Your task to perform on an android device: change the clock display to analog Image 0: 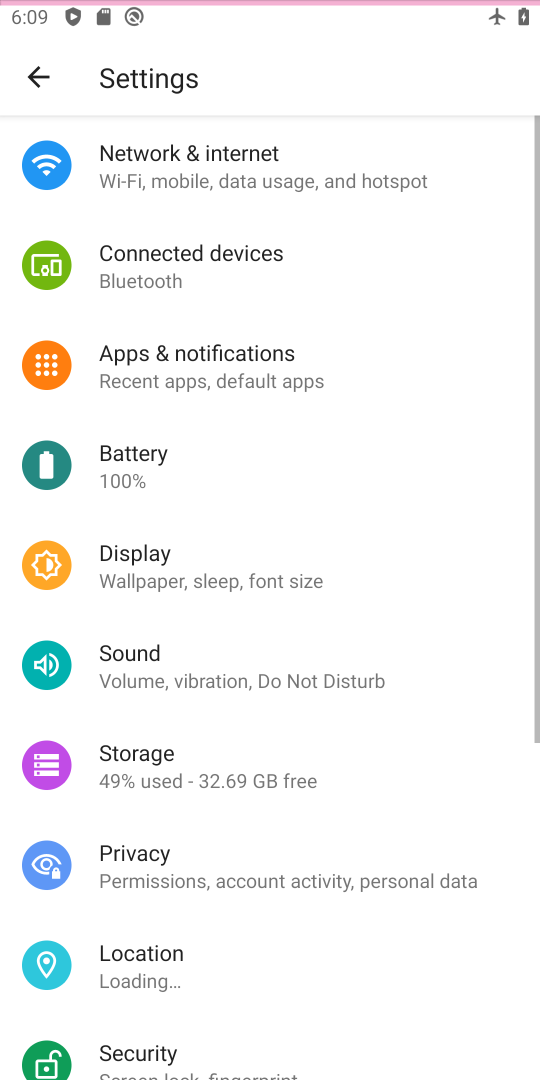
Step 0: press home button
Your task to perform on an android device: change the clock display to analog Image 1: 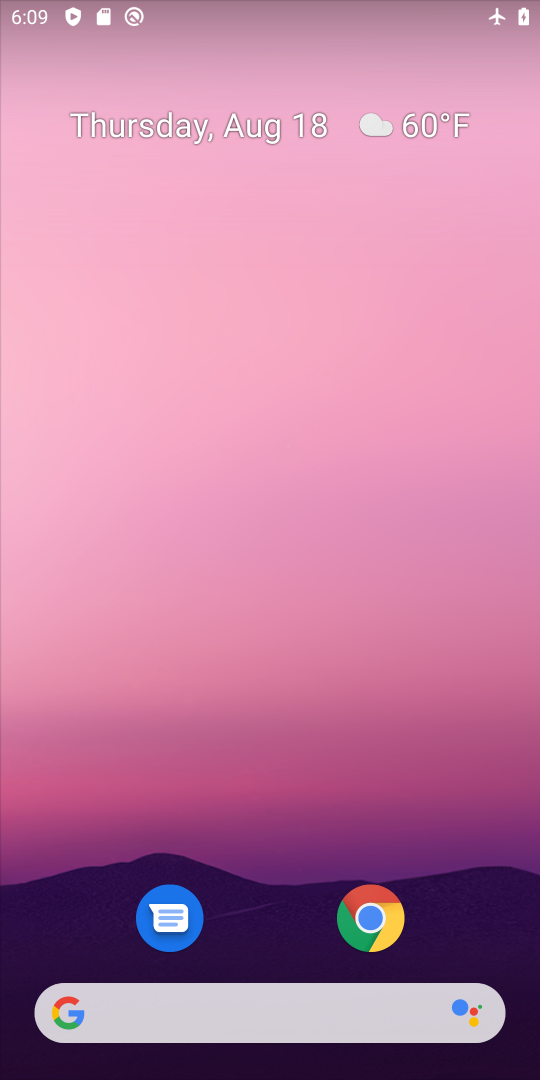
Step 1: drag from (233, 852) to (198, 288)
Your task to perform on an android device: change the clock display to analog Image 2: 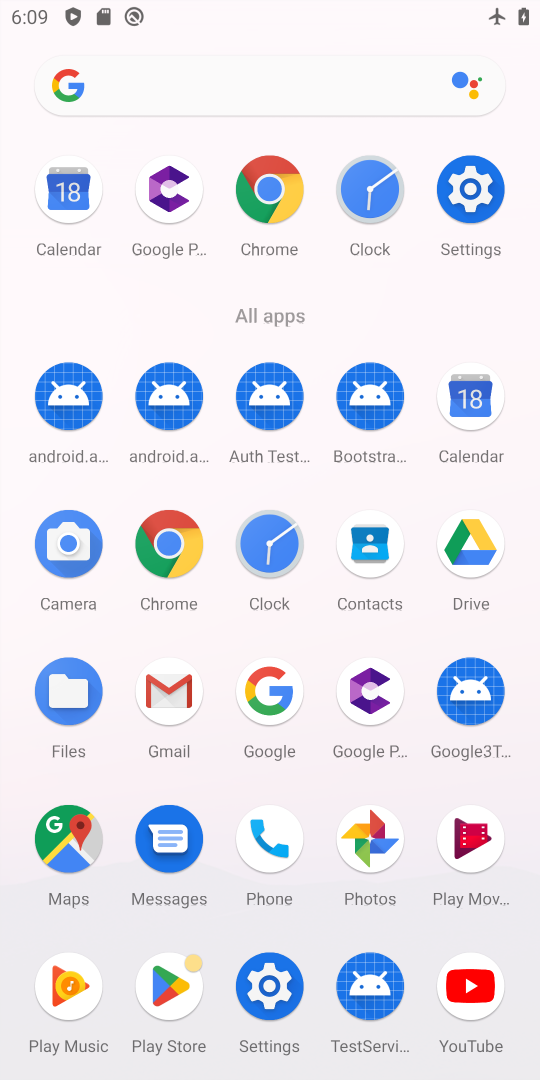
Step 2: click (359, 210)
Your task to perform on an android device: change the clock display to analog Image 3: 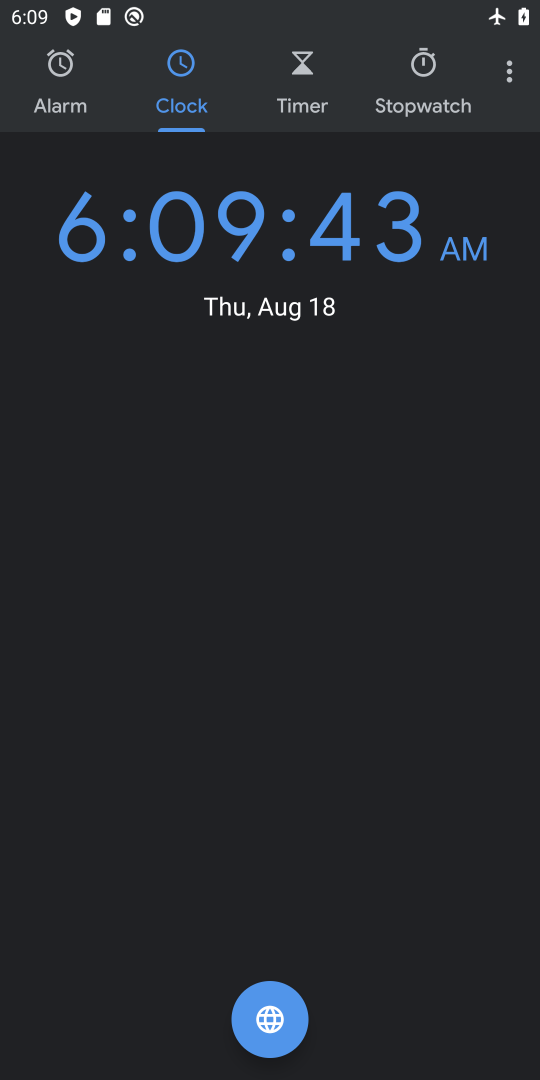
Step 3: click (516, 77)
Your task to perform on an android device: change the clock display to analog Image 4: 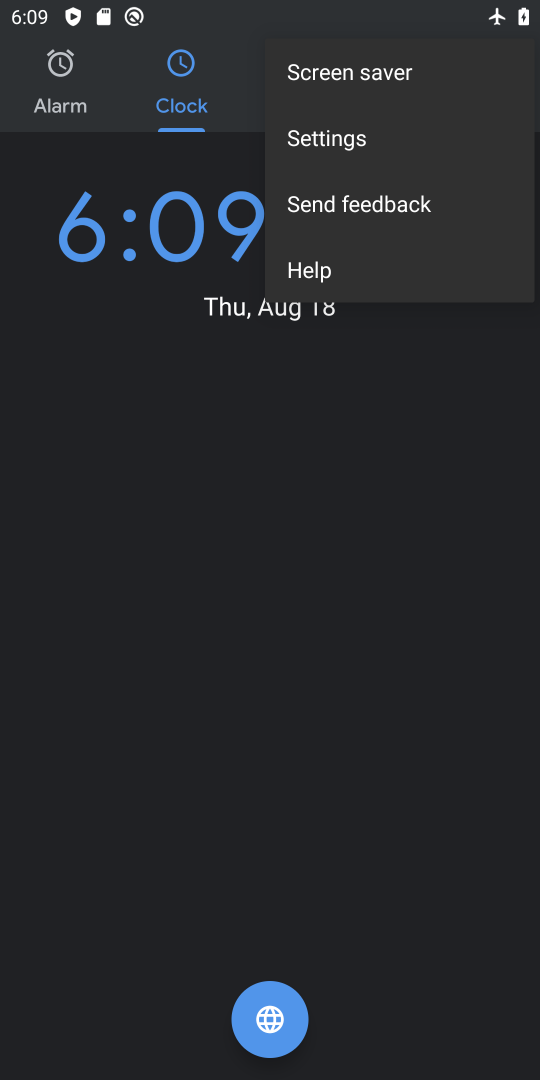
Step 4: click (347, 137)
Your task to perform on an android device: change the clock display to analog Image 5: 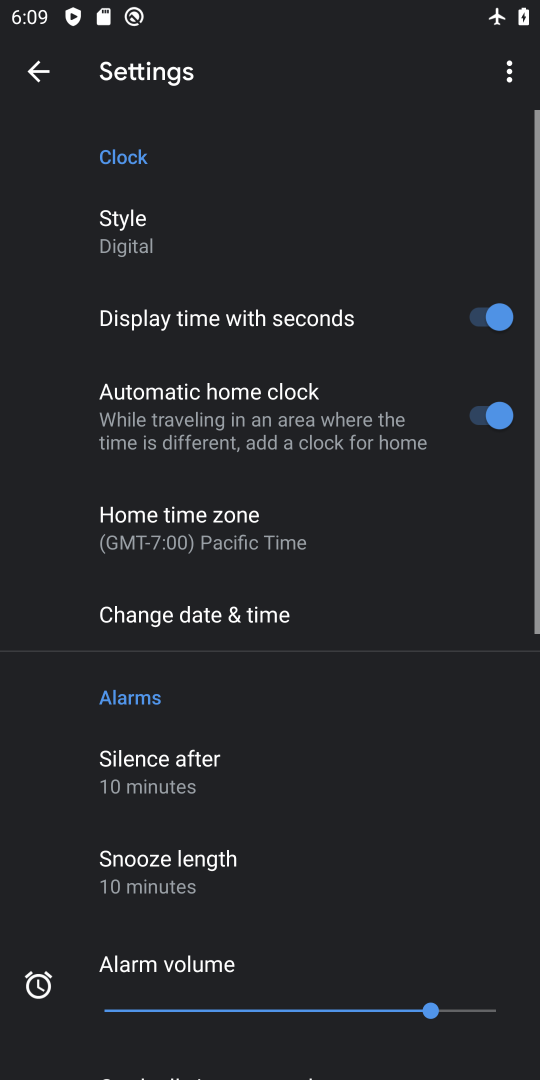
Step 5: click (125, 228)
Your task to perform on an android device: change the clock display to analog Image 6: 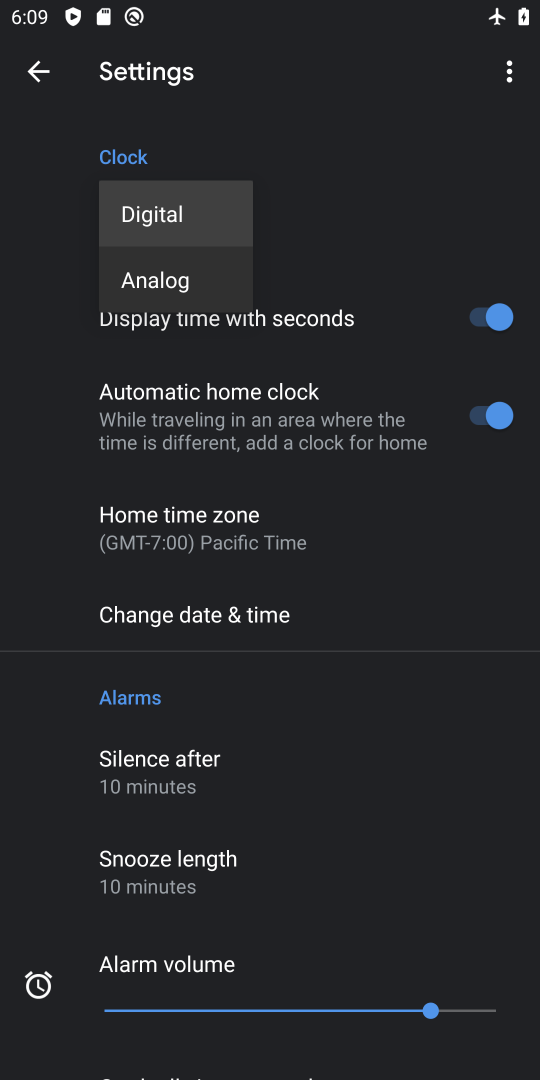
Step 6: click (140, 291)
Your task to perform on an android device: change the clock display to analog Image 7: 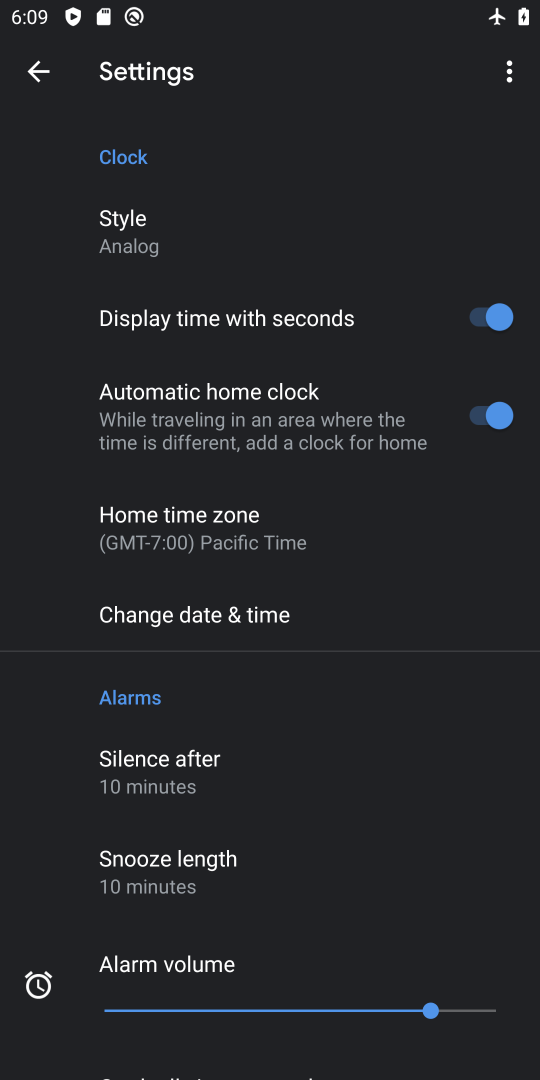
Step 7: task complete